Your task to perform on an android device: Open wifi settings Image 0: 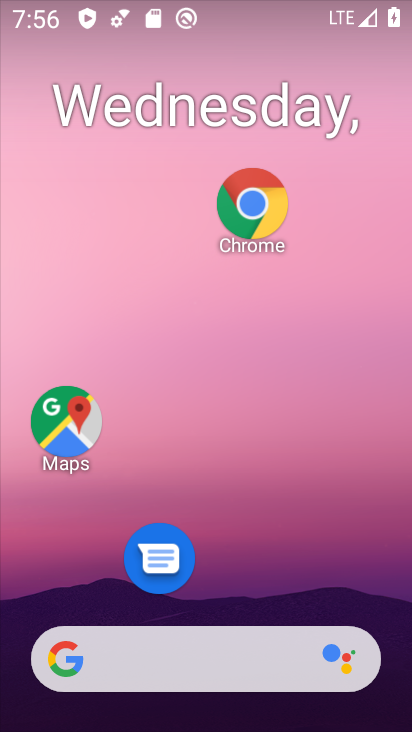
Step 0: press home button
Your task to perform on an android device: Open wifi settings Image 1: 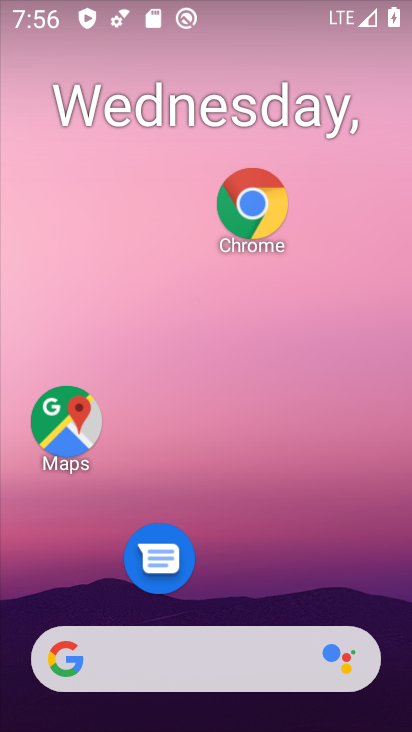
Step 1: press home button
Your task to perform on an android device: Open wifi settings Image 2: 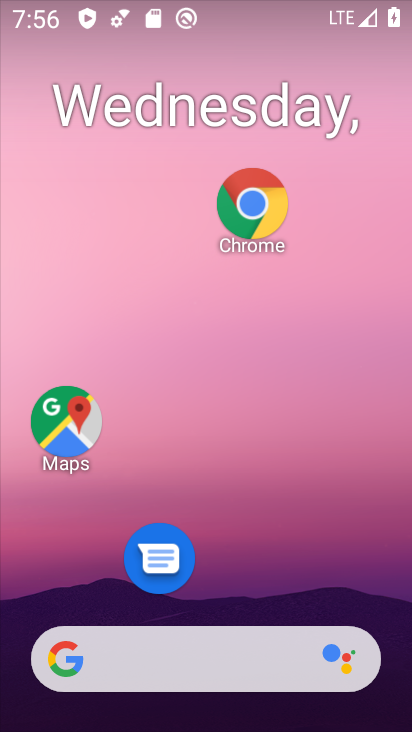
Step 2: drag from (233, 569) to (255, 88)
Your task to perform on an android device: Open wifi settings Image 3: 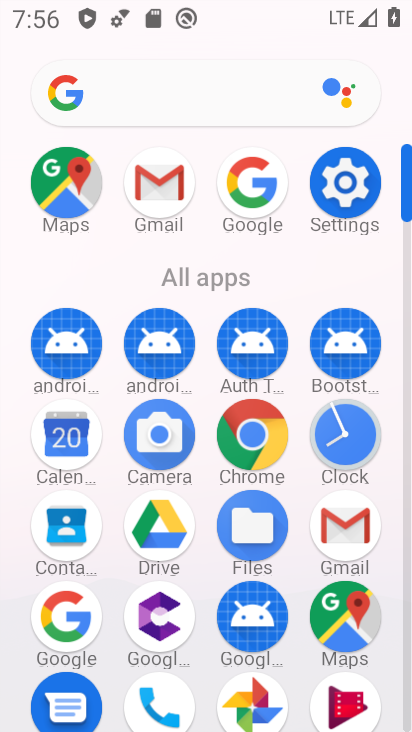
Step 3: click (344, 177)
Your task to perform on an android device: Open wifi settings Image 4: 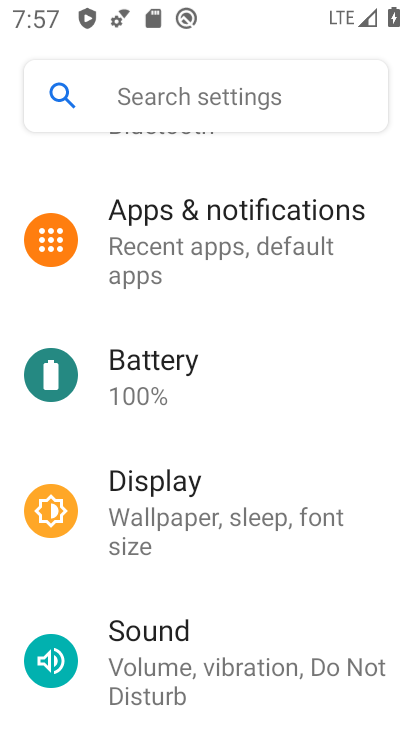
Step 4: drag from (220, 216) to (220, 581)
Your task to perform on an android device: Open wifi settings Image 5: 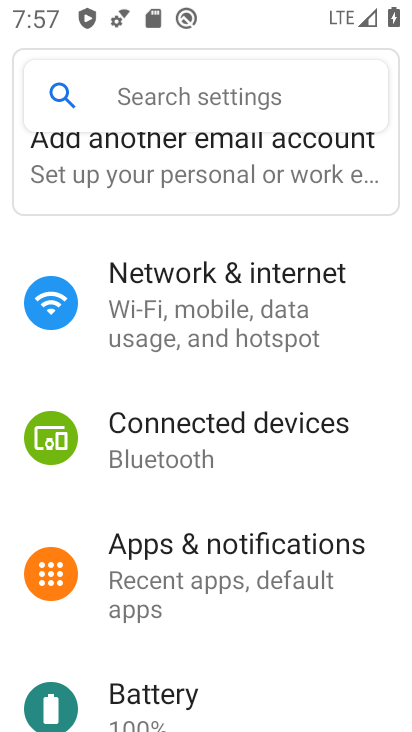
Step 5: click (201, 308)
Your task to perform on an android device: Open wifi settings Image 6: 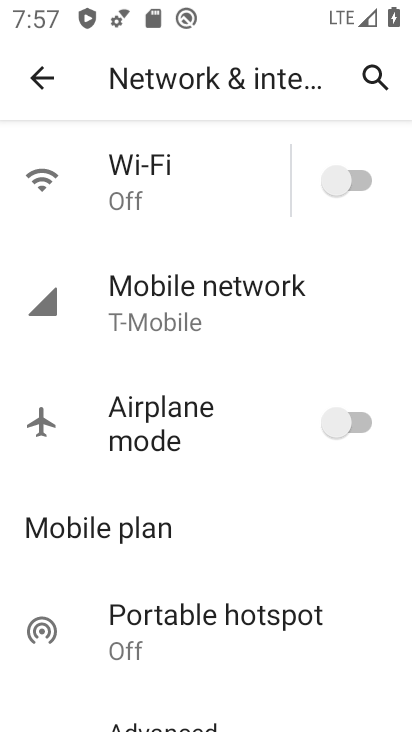
Step 6: click (225, 173)
Your task to perform on an android device: Open wifi settings Image 7: 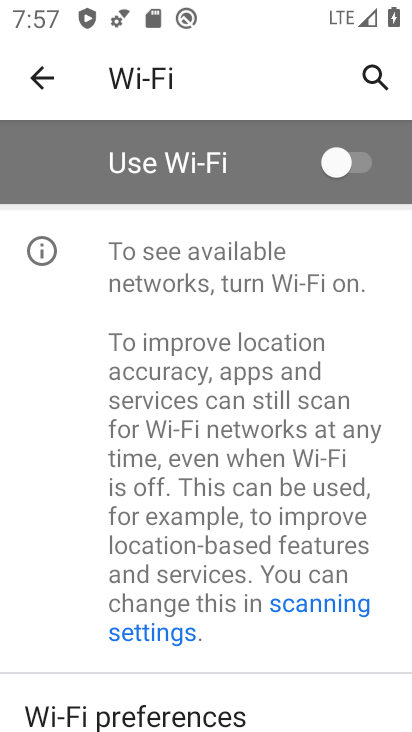
Step 7: click (356, 157)
Your task to perform on an android device: Open wifi settings Image 8: 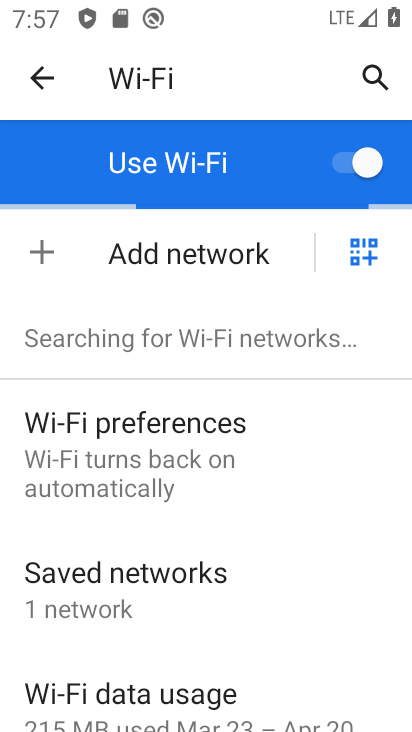
Step 8: task complete